Your task to perform on an android device: Search for hotels in Buenos aires Image 0: 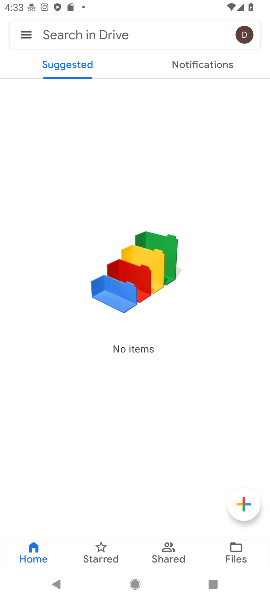
Step 0: press home button
Your task to perform on an android device: Search for hotels in Buenos aires Image 1: 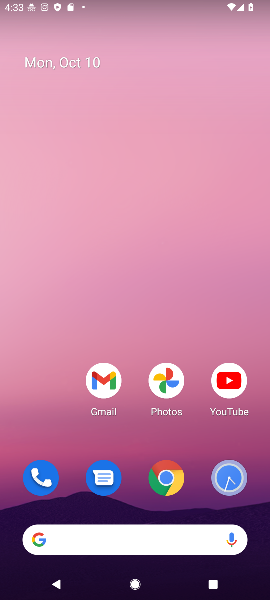
Step 1: click (108, 542)
Your task to perform on an android device: Search for hotels in Buenos aires Image 2: 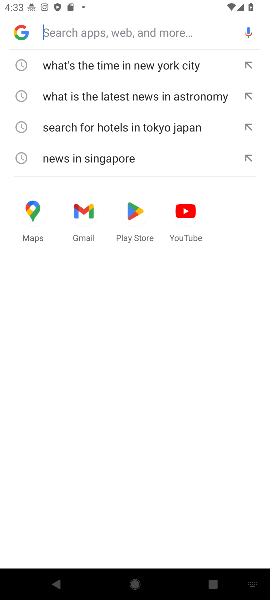
Step 2: type "Search for hotels in Buenos aires"
Your task to perform on an android device: Search for hotels in Buenos aires Image 3: 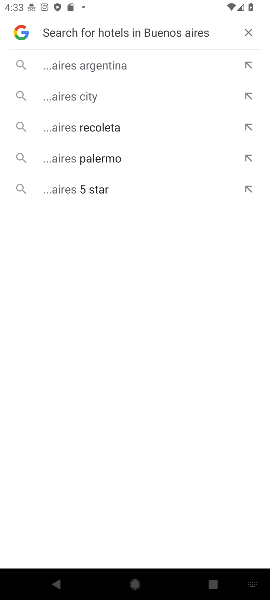
Step 3: click (91, 62)
Your task to perform on an android device: Search for hotels in Buenos aires Image 4: 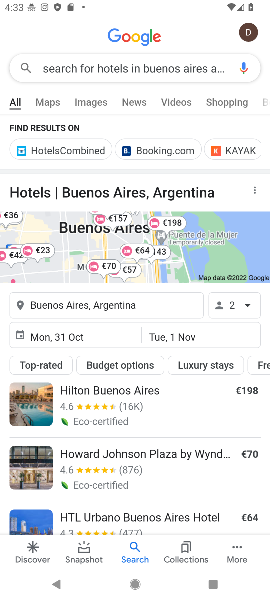
Step 4: task complete